Your task to perform on an android device: Open Youtube and go to the subscriptions tab Image 0: 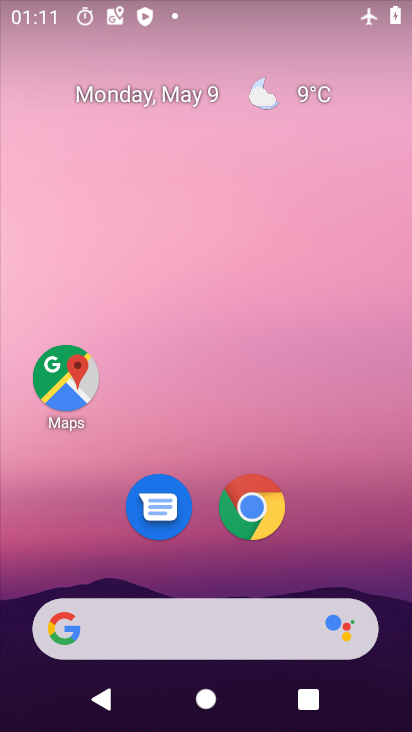
Step 0: drag from (227, 726) to (211, 113)
Your task to perform on an android device: Open Youtube and go to the subscriptions tab Image 1: 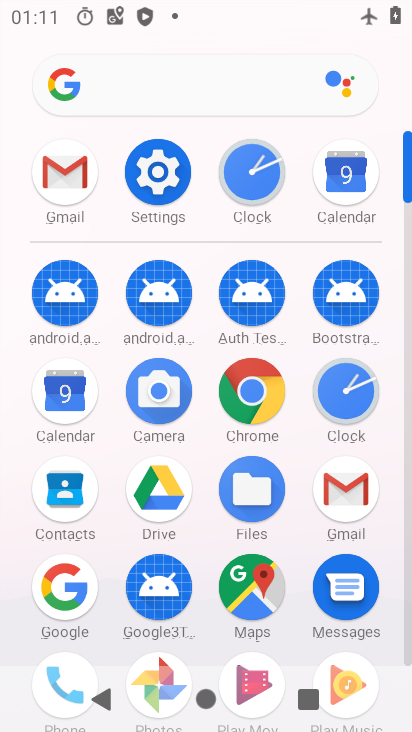
Step 1: drag from (386, 634) to (386, 320)
Your task to perform on an android device: Open Youtube and go to the subscriptions tab Image 2: 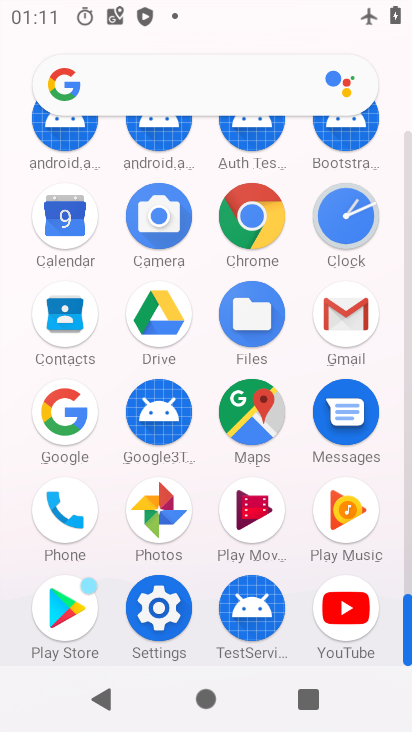
Step 2: click (356, 611)
Your task to perform on an android device: Open Youtube and go to the subscriptions tab Image 3: 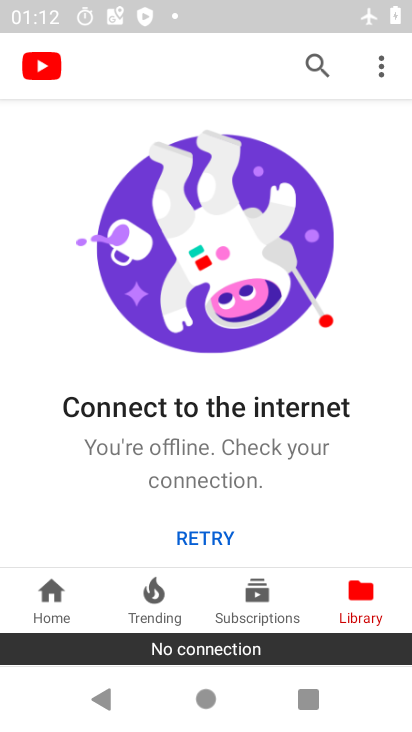
Step 3: click (265, 601)
Your task to perform on an android device: Open Youtube and go to the subscriptions tab Image 4: 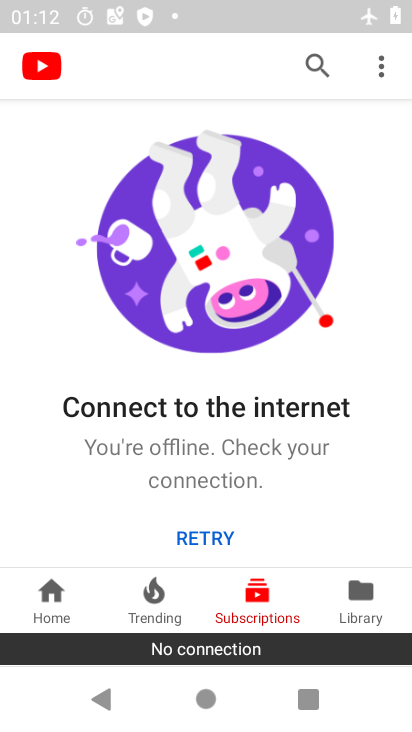
Step 4: task complete